Your task to perform on an android device: Do I have any events this weekend? Image 0: 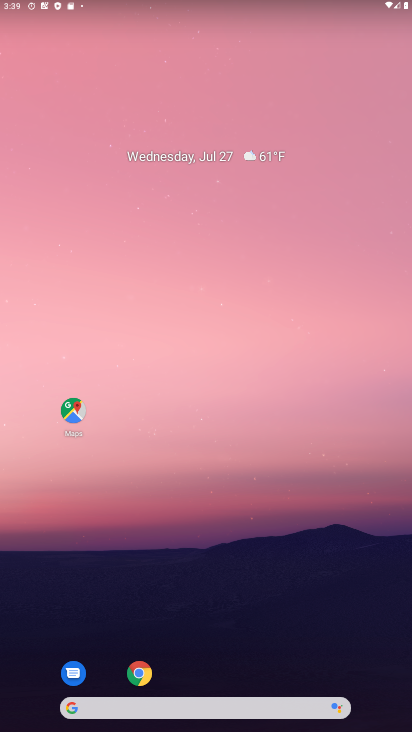
Step 0: drag from (66, 562) to (244, 85)
Your task to perform on an android device: Do I have any events this weekend? Image 1: 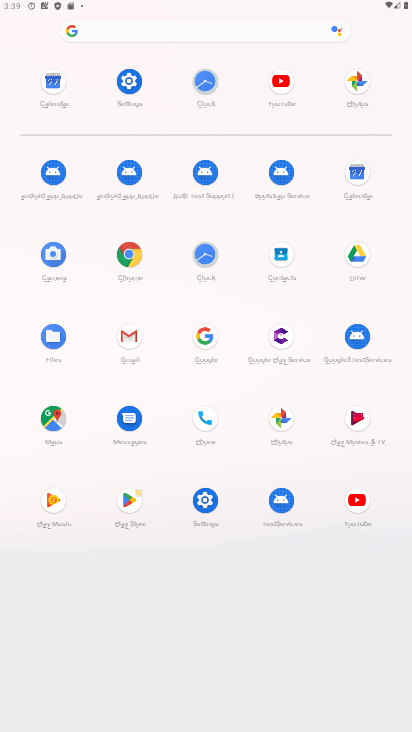
Step 1: click (357, 172)
Your task to perform on an android device: Do I have any events this weekend? Image 2: 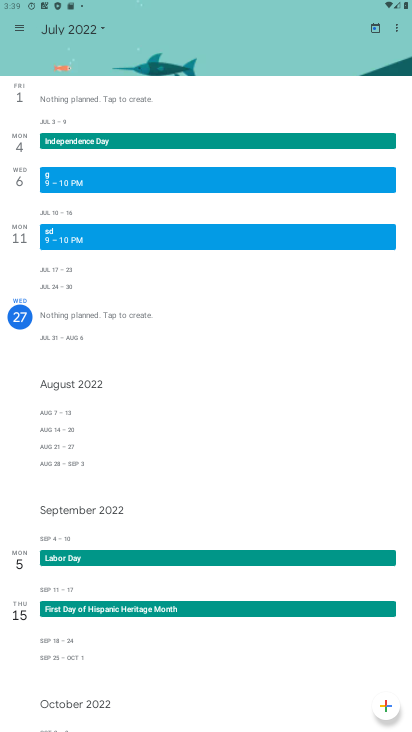
Step 2: click (102, 25)
Your task to perform on an android device: Do I have any events this weekend? Image 3: 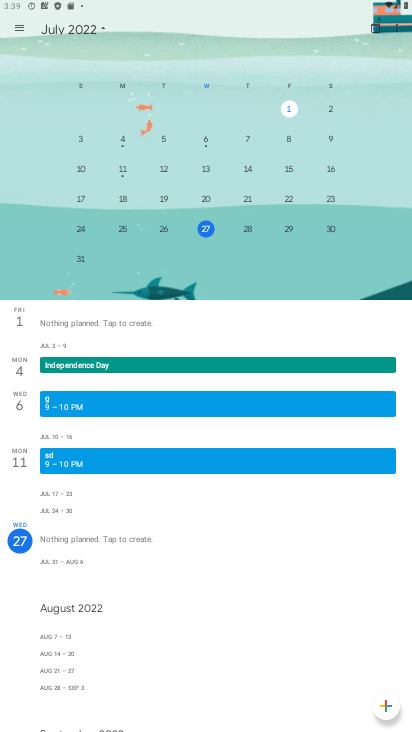
Step 3: task complete